Your task to perform on an android device: set default search engine in the chrome app Image 0: 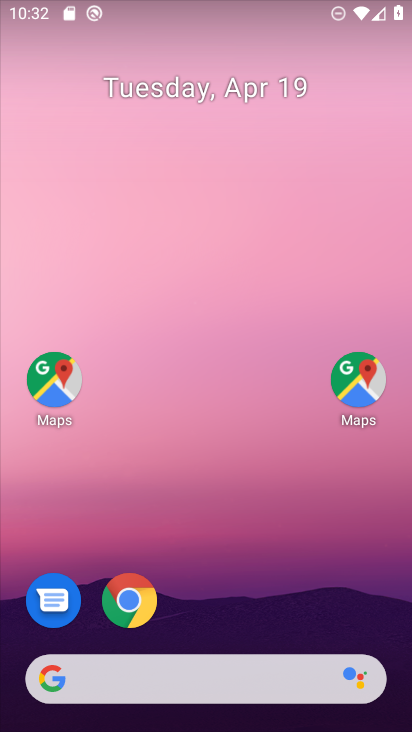
Step 0: drag from (227, 647) to (154, 127)
Your task to perform on an android device: set default search engine in the chrome app Image 1: 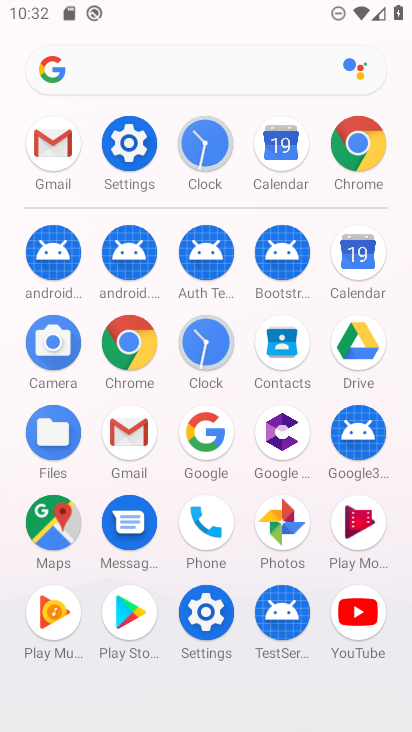
Step 1: click (120, 351)
Your task to perform on an android device: set default search engine in the chrome app Image 2: 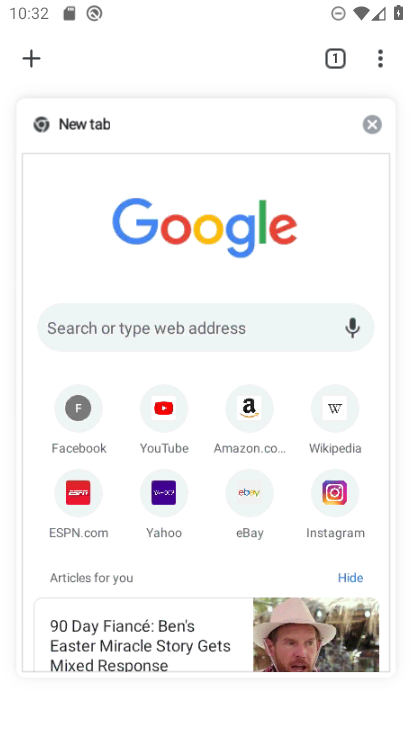
Step 2: click (391, 56)
Your task to perform on an android device: set default search engine in the chrome app Image 3: 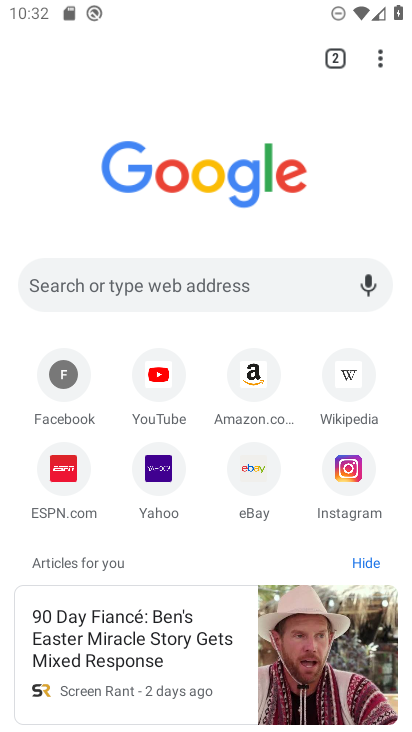
Step 3: click (367, 60)
Your task to perform on an android device: set default search engine in the chrome app Image 4: 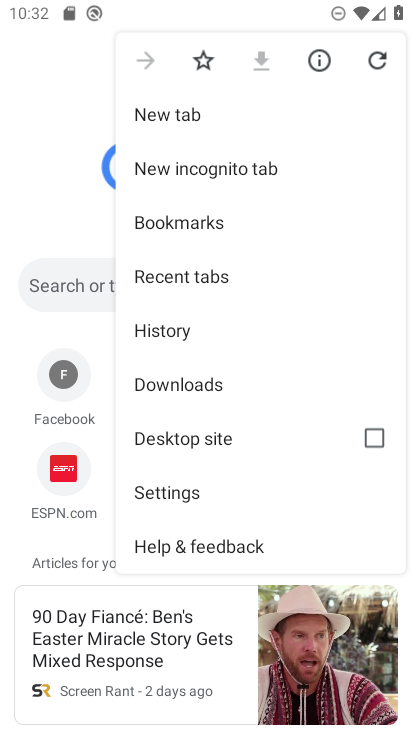
Step 4: click (249, 497)
Your task to perform on an android device: set default search engine in the chrome app Image 5: 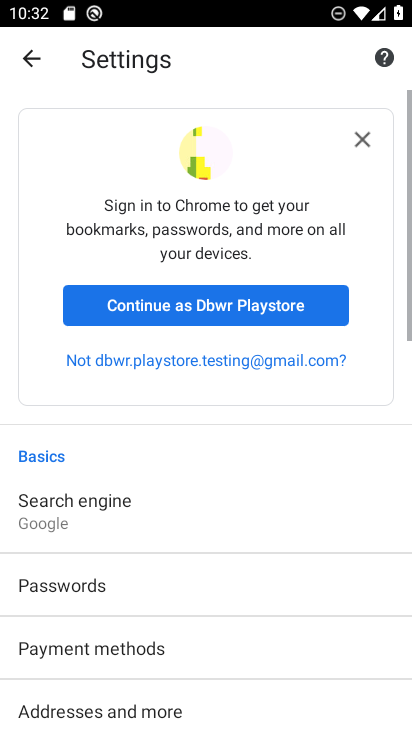
Step 5: drag from (230, 588) to (210, 248)
Your task to perform on an android device: set default search engine in the chrome app Image 6: 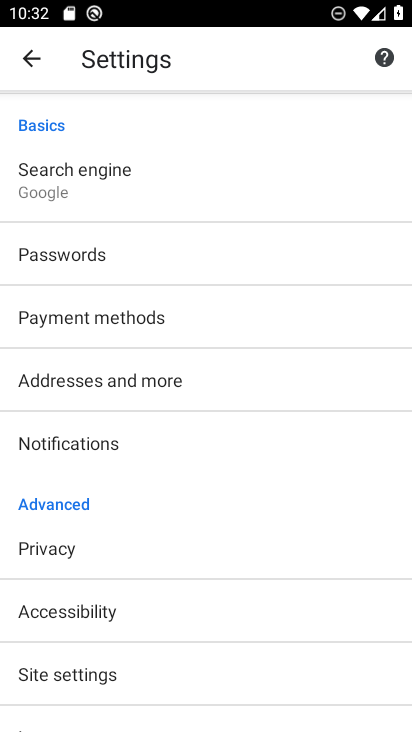
Step 6: click (132, 202)
Your task to perform on an android device: set default search engine in the chrome app Image 7: 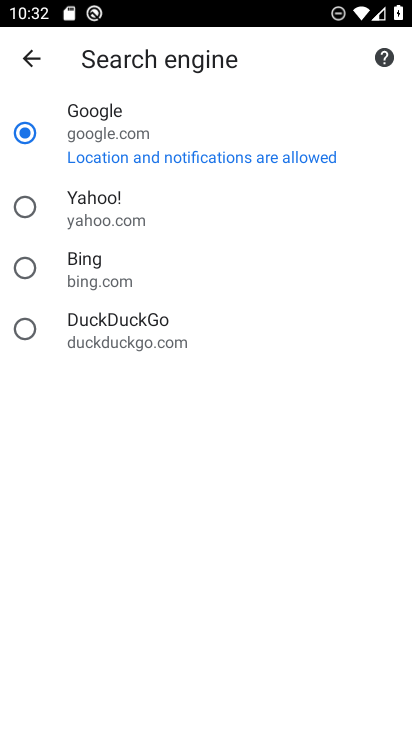
Step 7: task complete